Your task to perform on an android device: open a bookmark in the chrome app Image 0: 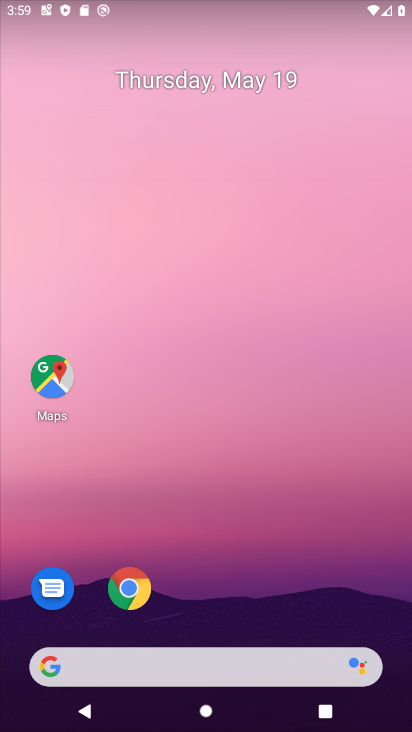
Step 0: click (130, 580)
Your task to perform on an android device: open a bookmark in the chrome app Image 1: 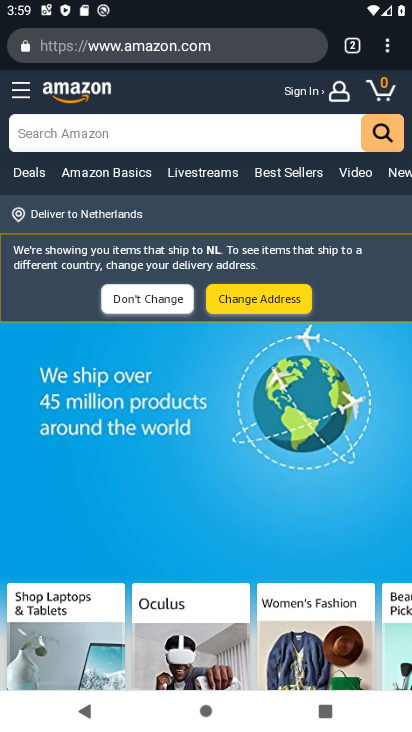
Step 1: click (394, 40)
Your task to perform on an android device: open a bookmark in the chrome app Image 2: 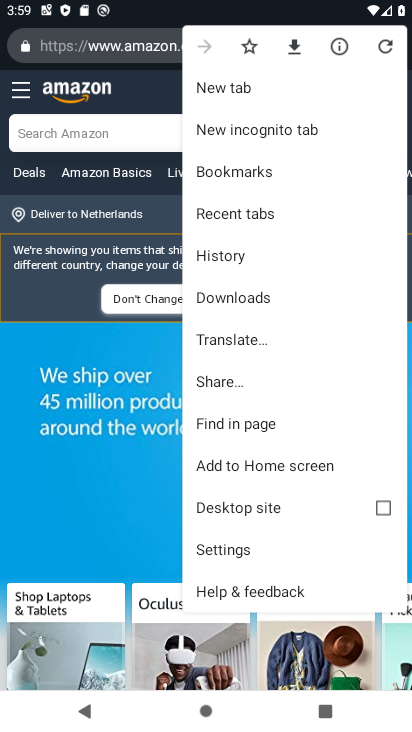
Step 2: click (262, 171)
Your task to perform on an android device: open a bookmark in the chrome app Image 3: 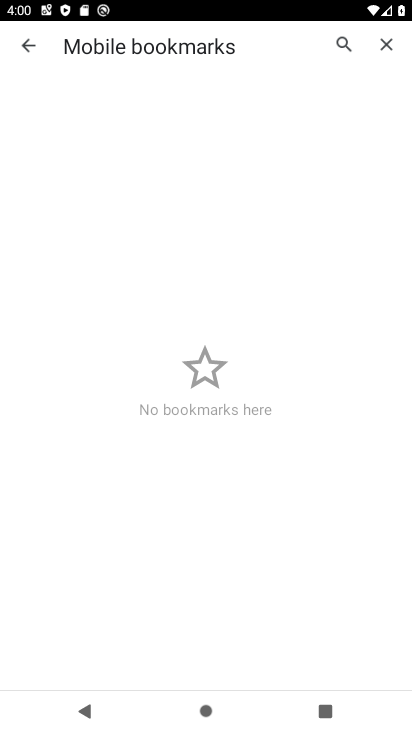
Step 3: task complete